Your task to perform on an android device: open a bookmark in the chrome app Image 0: 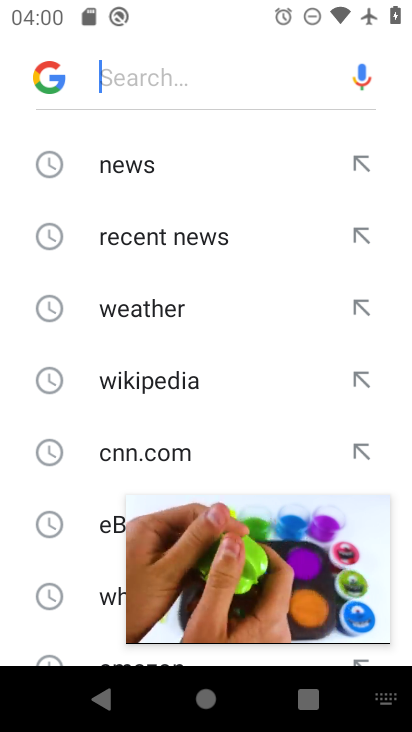
Step 0: click (356, 511)
Your task to perform on an android device: open a bookmark in the chrome app Image 1: 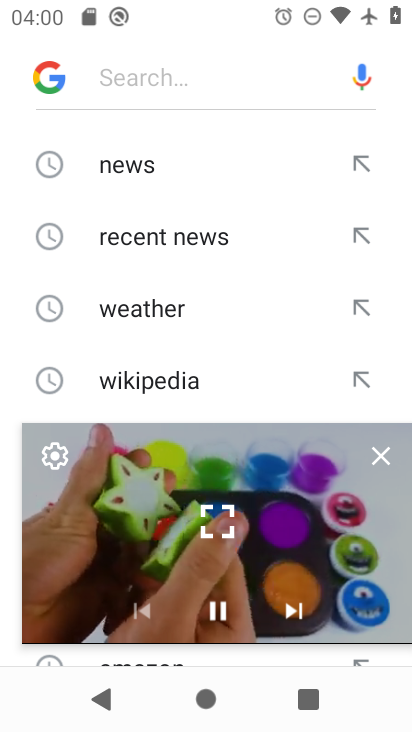
Step 1: click (380, 446)
Your task to perform on an android device: open a bookmark in the chrome app Image 2: 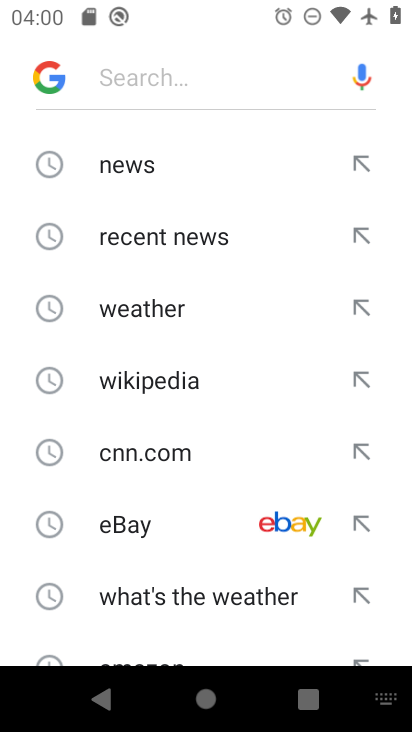
Step 2: press home button
Your task to perform on an android device: open a bookmark in the chrome app Image 3: 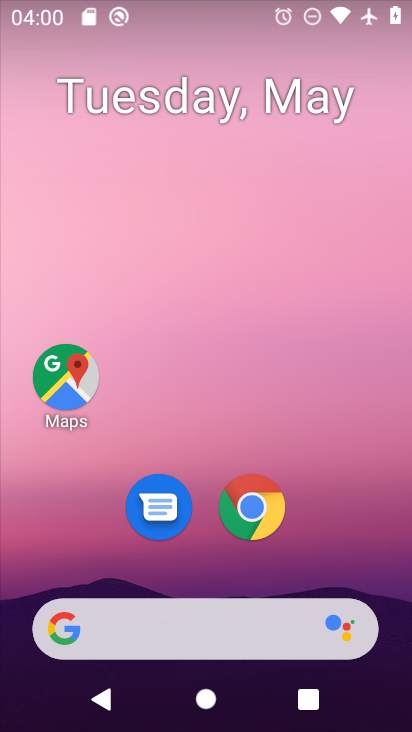
Step 3: click (240, 510)
Your task to perform on an android device: open a bookmark in the chrome app Image 4: 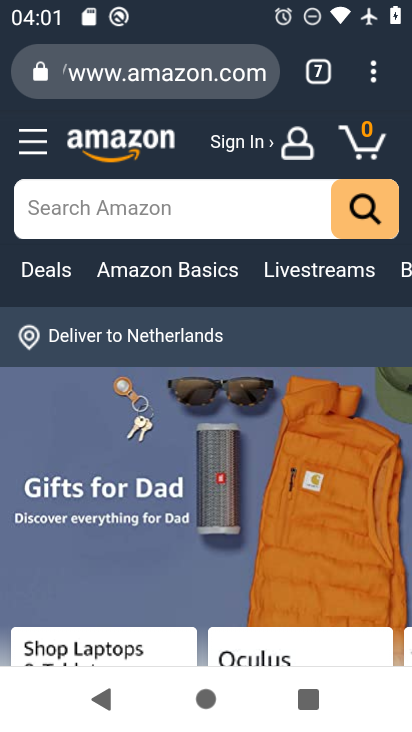
Step 4: task complete